Your task to perform on an android device: Go to settings Image 0: 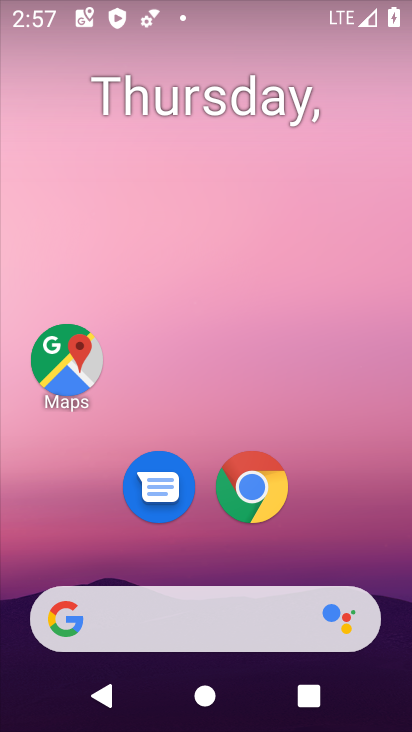
Step 0: drag from (353, 439) to (332, 116)
Your task to perform on an android device: Go to settings Image 1: 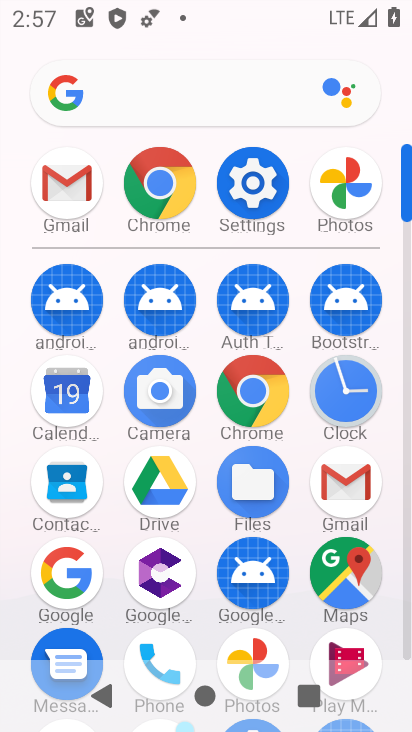
Step 1: click (258, 193)
Your task to perform on an android device: Go to settings Image 2: 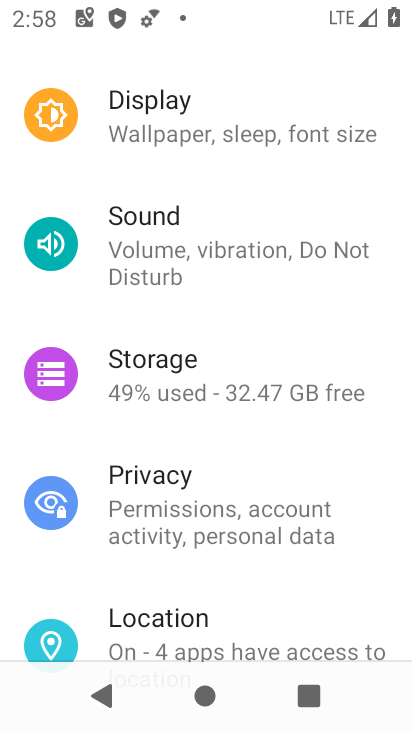
Step 2: task complete